Your task to perform on an android device: Go to Yahoo.com Image 0: 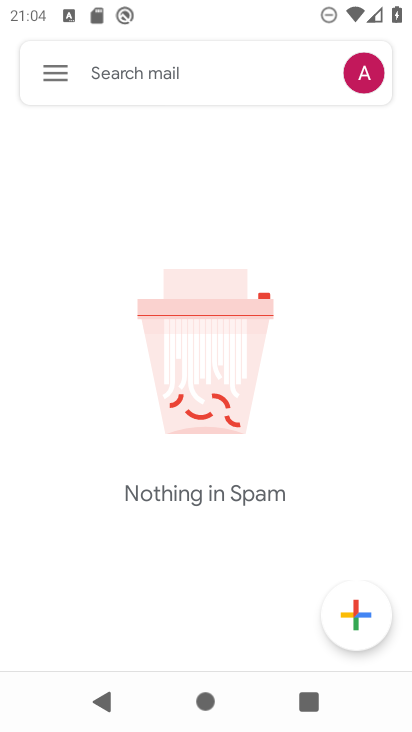
Step 0: press home button
Your task to perform on an android device: Go to Yahoo.com Image 1: 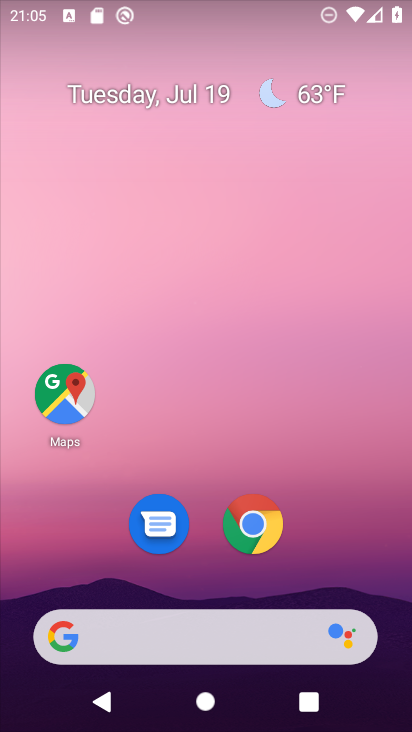
Step 1: click (172, 629)
Your task to perform on an android device: Go to Yahoo.com Image 2: 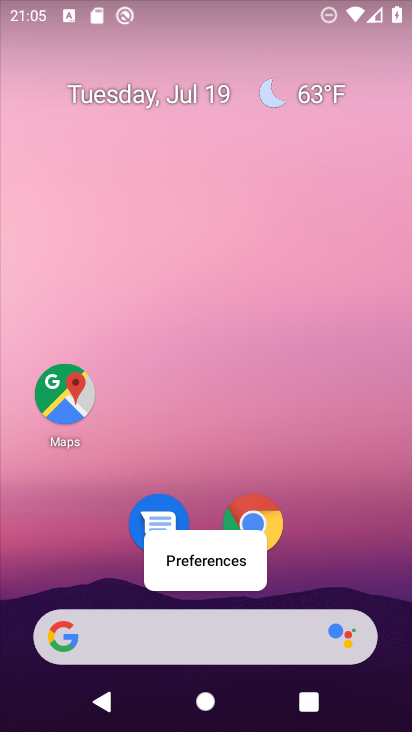
Step 2: click (161, 636)
Your task to perform on an android device: Go to Yahoo.com Image 3: 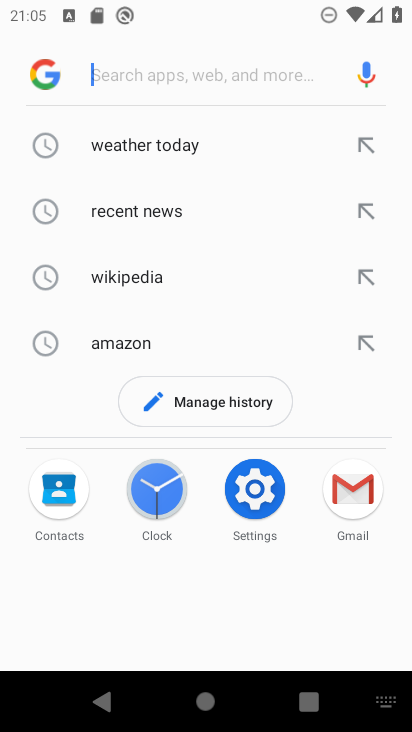
Step 3: type "yahoo.com"
Your task to perform on an android device: Go to Yahoo.com Image 4: 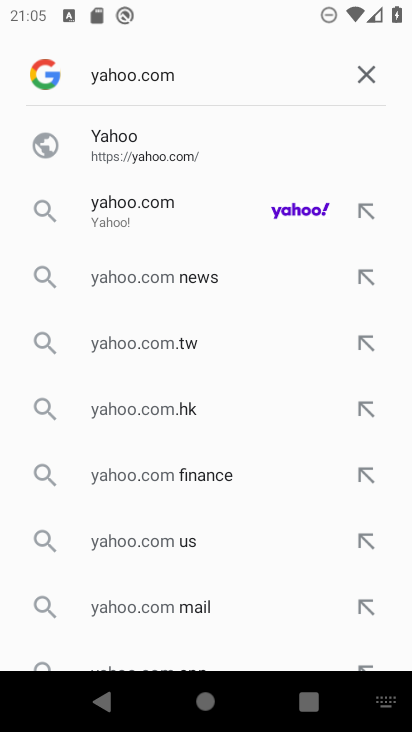
Step 4: click (305, 217)
Your task to perform on an android device: Go to Yahoo.com Image 5: 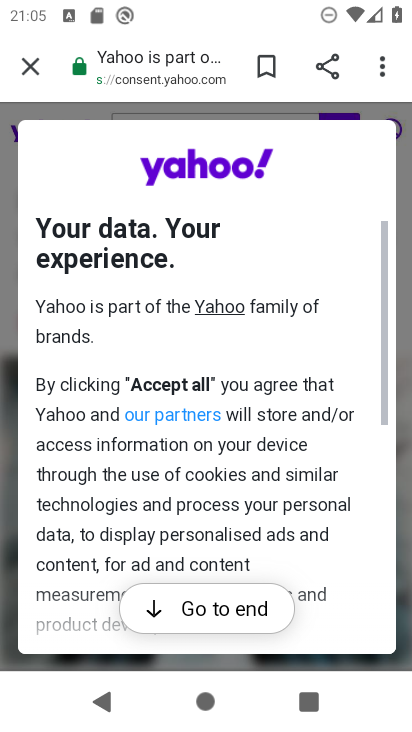
Step 5: click (271, 611)
Your task to perform on an android device: Go to Yahoo.com Image 6: 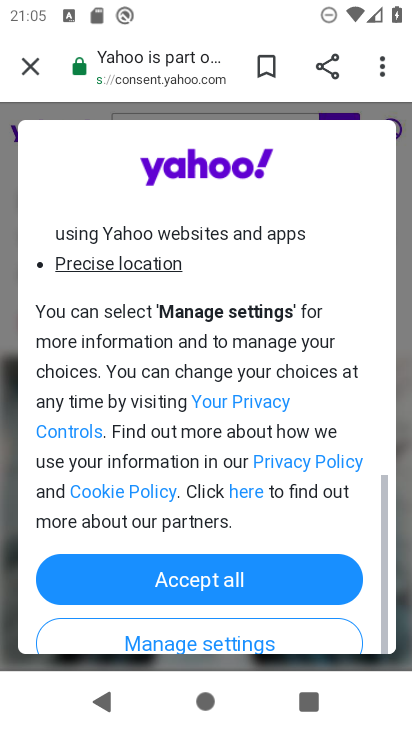
Step 6: click (285, 592)
Your task to perform on an android device: Go to Yahoo.com Image 7: 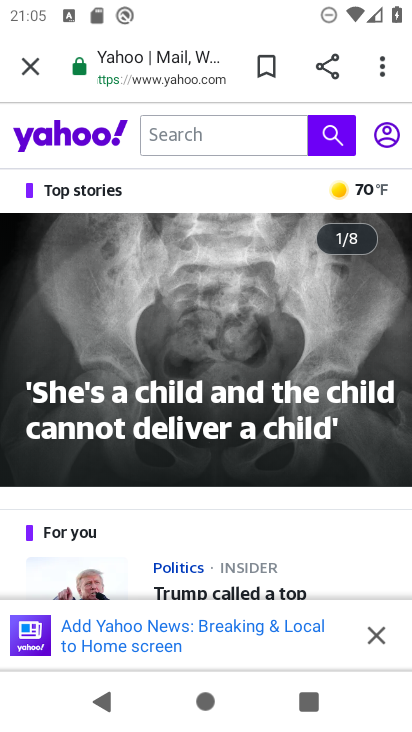
Step 7: click (287, 382)
Your task to perform on an android device: Go to Yahoo.com Image 8: 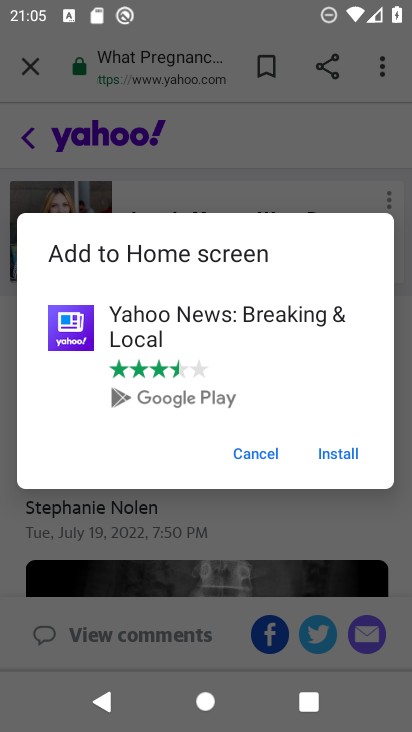
Step 8: click (262, 453)
Your task to perform on an android device: Go to Yahoo.com Image 9: 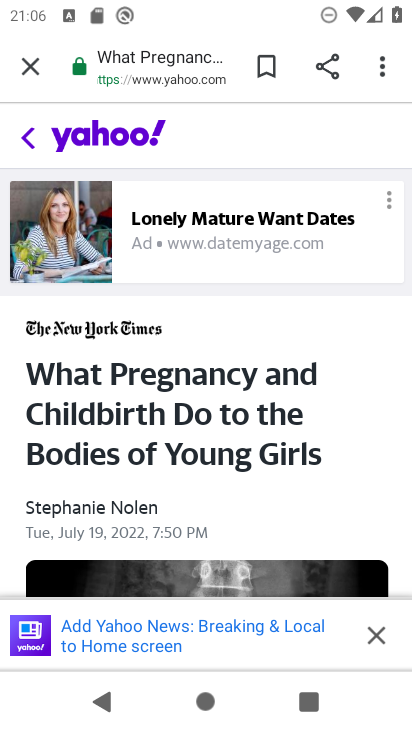
Step 9: task complete